Your task to perform on an android device: turn smart compose on in the gmail app Image 0: 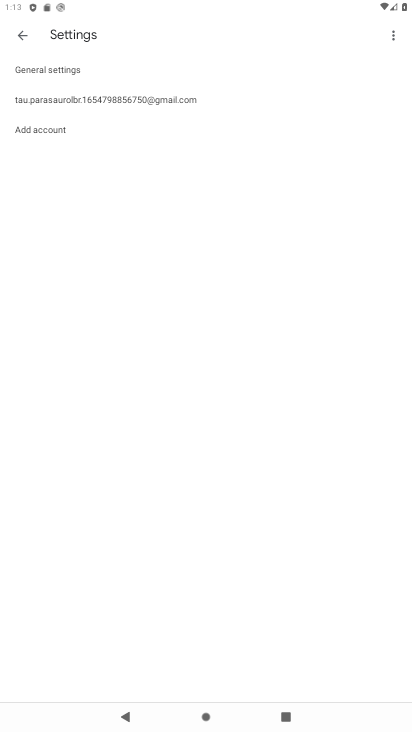
Step 0: press home button
Your task to perform on an android device: turn smart compose on in the gmail app Image 1: 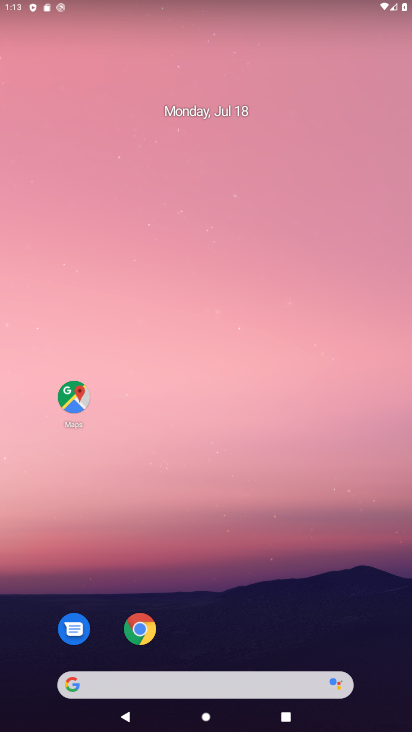
Step 1: drag from (218, 605) to (240, 57)
Your task to perform on an android device: turn smart compose on in the gmail app Image 2: 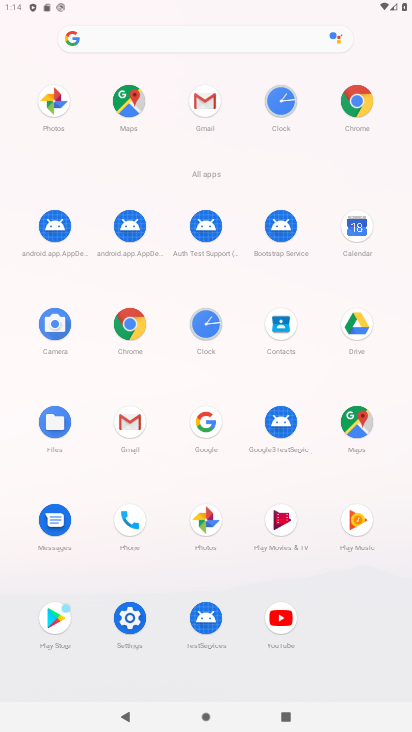
Step 2: click (124, 417)
Your task to perform on an android device: turn smart compose on in the gmail app Image 3: 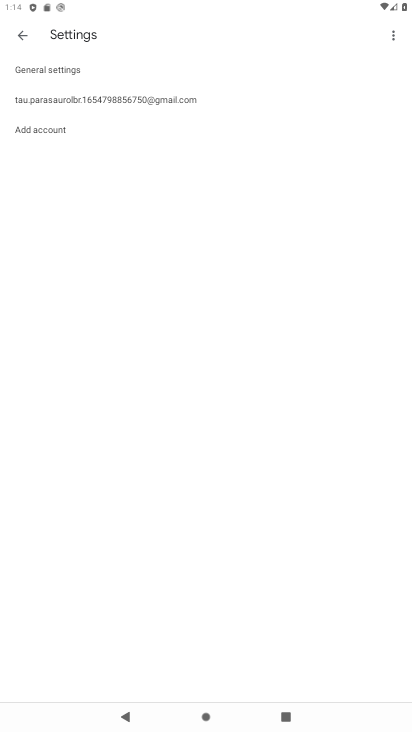
Step 3: click (88, 98)
Your task to perform on an android device: turn smart compose on in the gmail app Image 4: 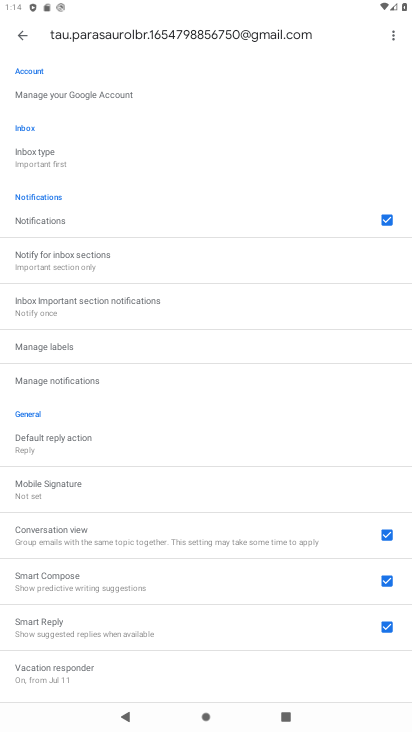
Step 4: task complete